Your task to perform on an android device: Open Amazon Image 0: 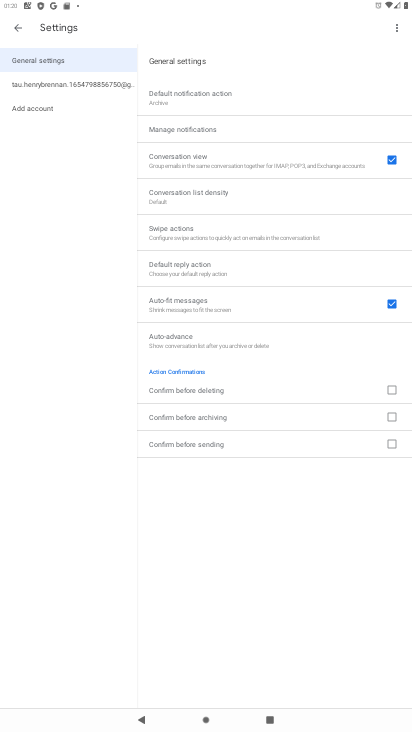
Step 0: press home button
Your task to perform on an android device: Open Amazon Image 1: 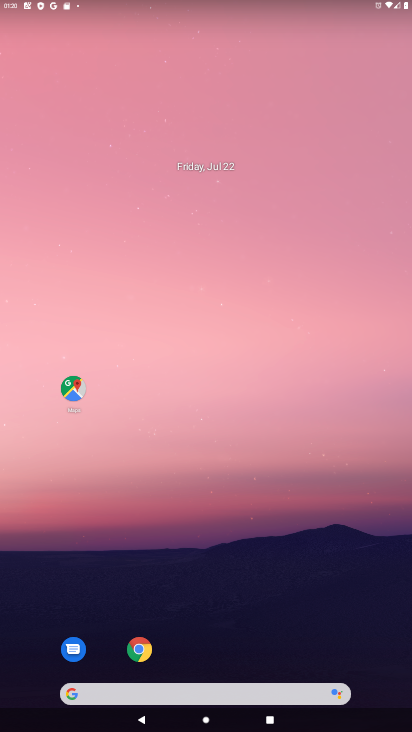
Step 1: drag from (217, 623) to (191, 25)
Your task to perform on an android device: Open Amazon Image 2: 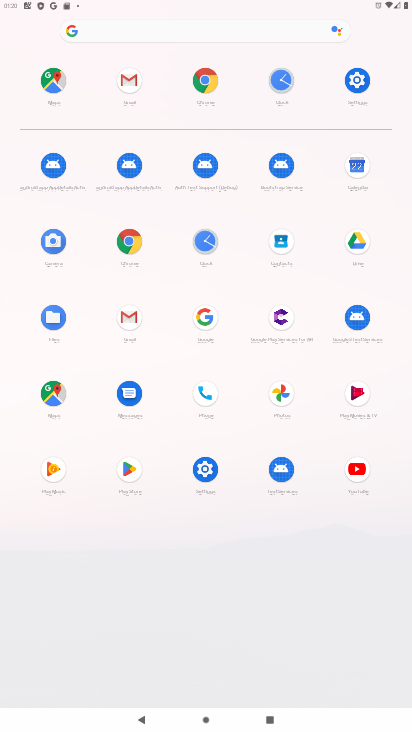
Step 2: click (203, 76)
Your task to perform on an android device: Open Amazon Image 3: 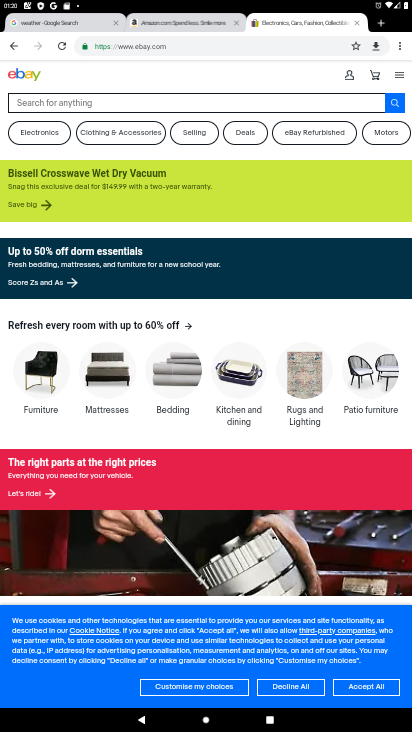
Step 3: click (202, 46)
Your task to perform on an android device: Open Amazon Image 4: 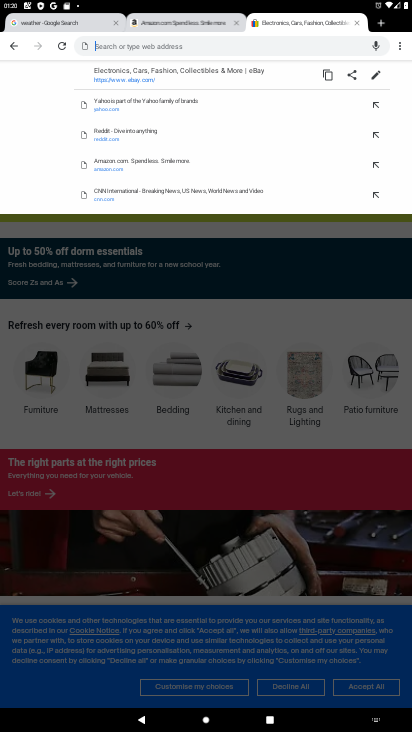
Step 4: type "amazon"
Your task to perform on an android device: Open Amazon Image 5: 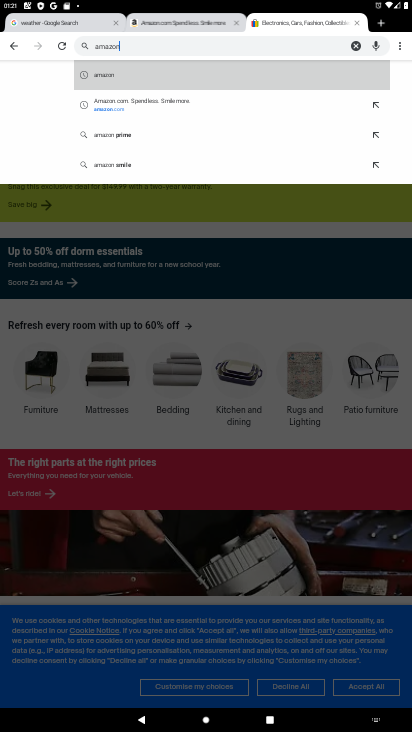
Step 5: click (162, 79)
Your task to perform on an android device: Open Amazon Image 6: 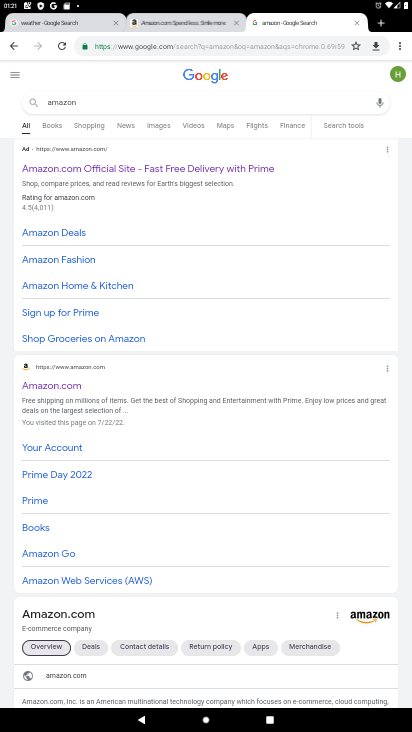
Step 6: click (32, 390)
Your task to perform on an android device: Open Amazon Image 7: 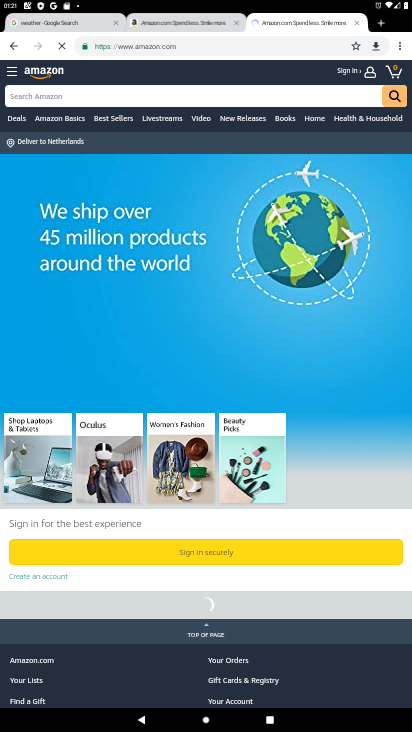
Step 7: task complete